Your task to perform on an android device: turn off wifi Image 0: 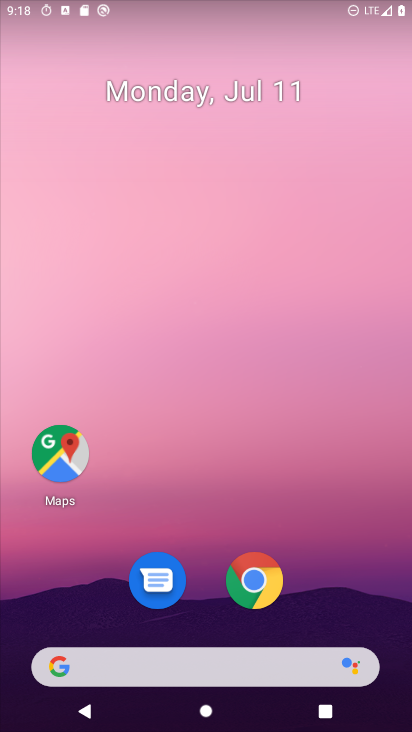
Step 0: drag from (302, 542) to (285, 47)
Your task to perform on an android device: turn off wifi Image 1: 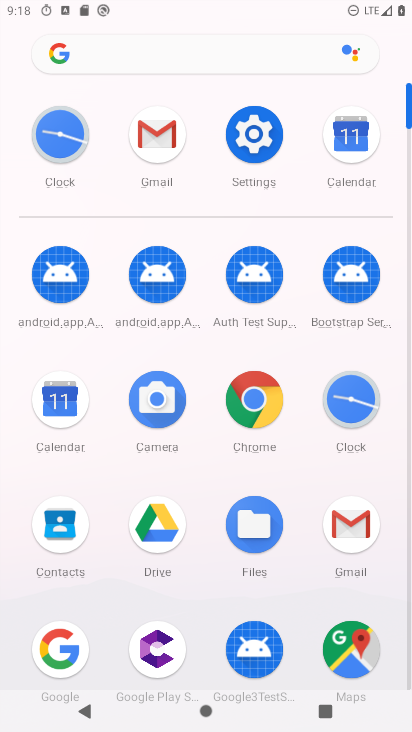
Step 1: click (249, 130)
Your task to perform on an android device: turn off wifi Image 2: 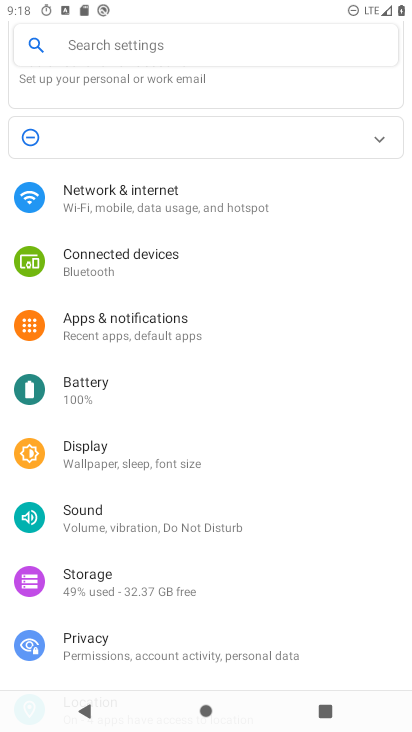
Step 2: click (240, 203)
Your task to perform on an android device: turn off wifi Image 3: 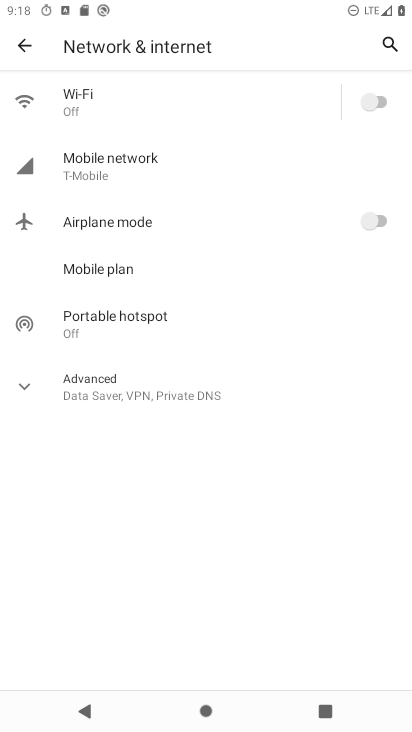
Step 3: task complete